Your task to perform on an android device: turn off notifications settings in the gmail app Image 0: 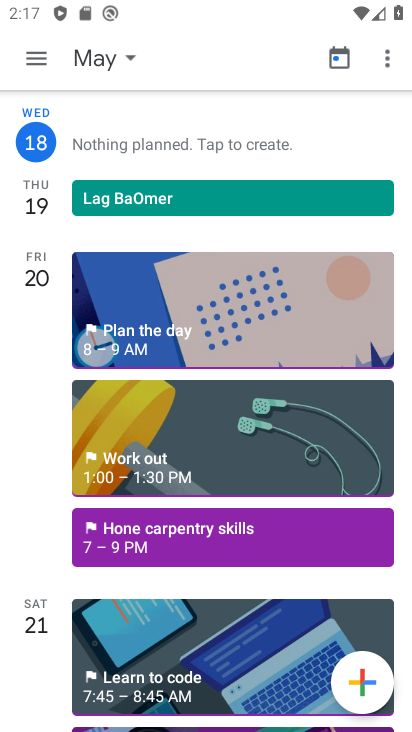
Step 0: press home button
Your task to perform on an android device: turn off notifications settings in the gmail app Image 1: 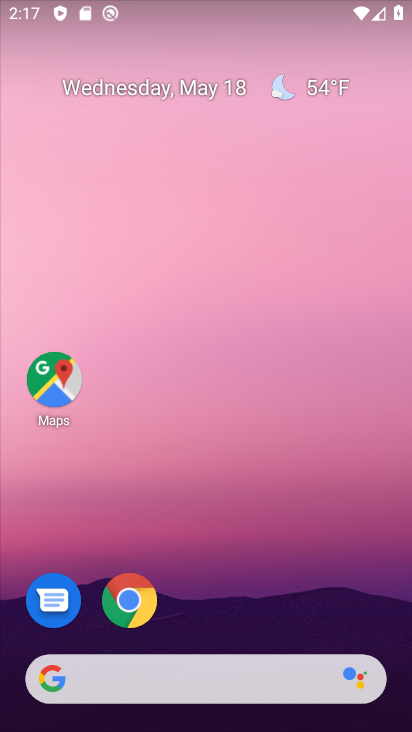
Step 1: drag from (123, 655) to (242, 266)
Your task to perform on an android device: turn off notifications settings in the gmail app Image 2: 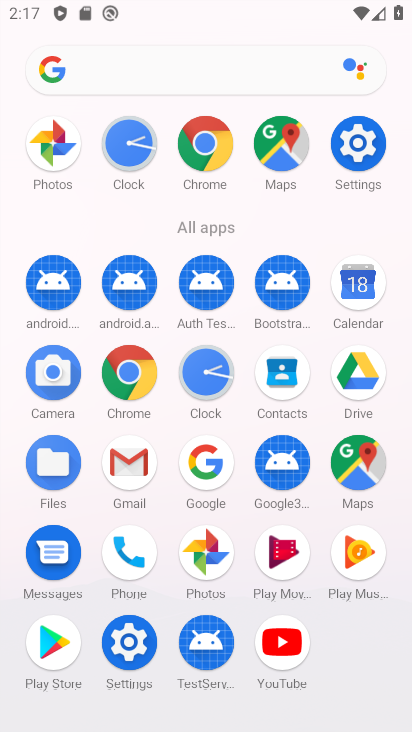
Step 2: click (133, 474)
Your task to perform on an android device: turn off notifications settings in the gmail app Image 3: 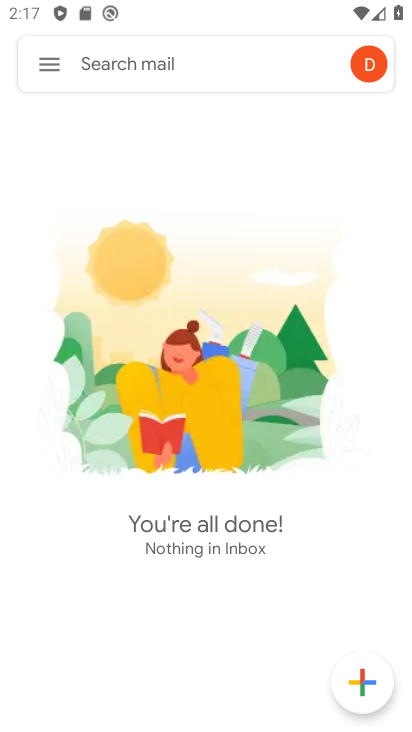
Step 3: click (44, 60)
Your task to perform on an android device: turn off notifications settings in the gmail app Image 4: 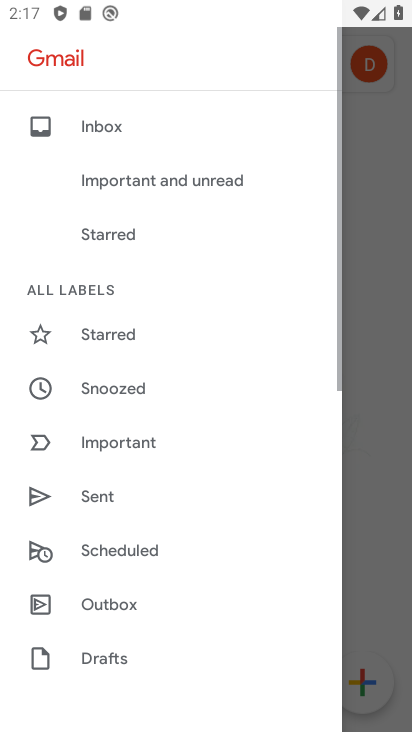
Step 4: drag from (155, 602) to (260, 253)
Your task to perform on an android device: turn off notifications settings in the gmail app Image 5: 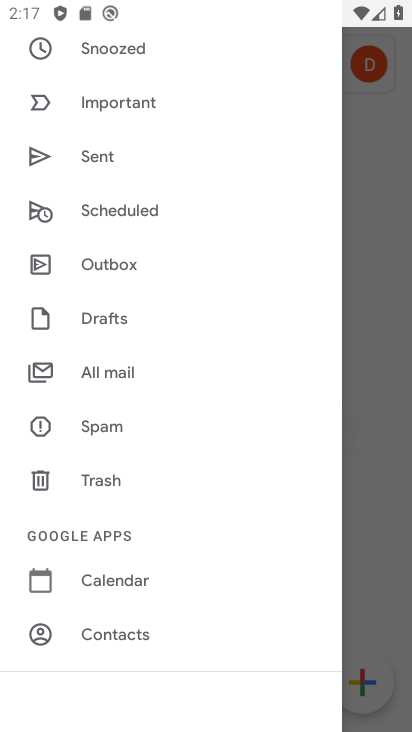
Step 5: drag from (147, 614) to (270, 242)
Your task to perform on an android device: turn off notifications settings in the gmail app Image 6: 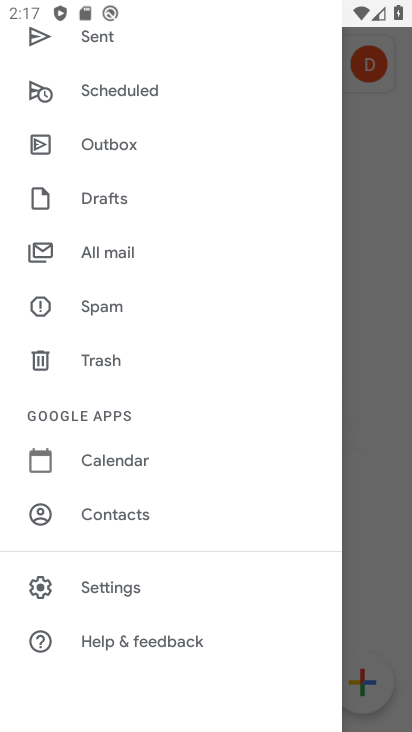
Step 6: click (121, 592)
Your task to perform on an android device: turn off notifications settings in the gmail app Image 7: 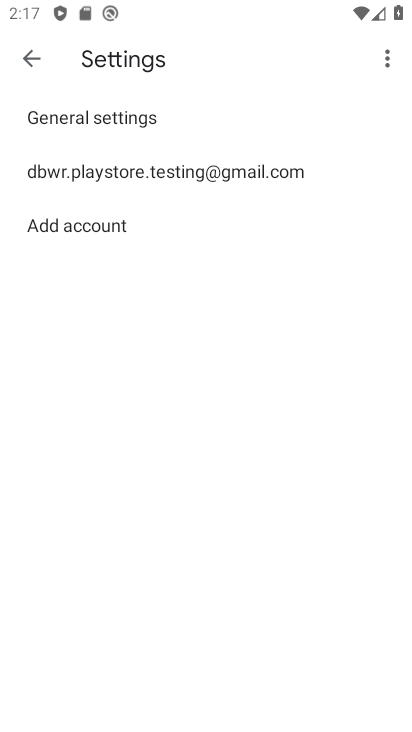
Step 7: click (241, 165)
Your task to perform on an android device: turn off notifications settings in the gmail app Image 8: 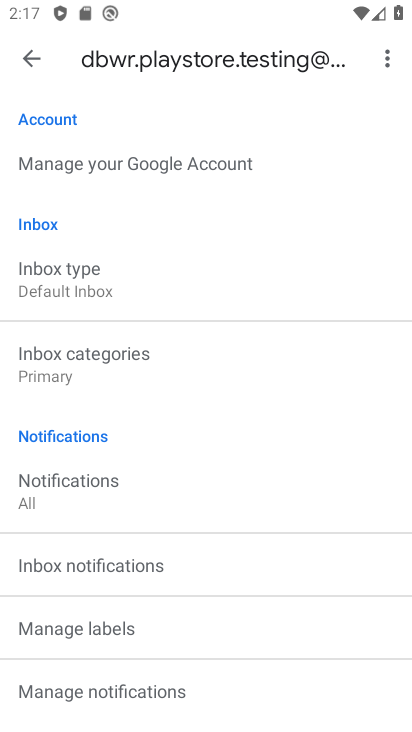
Step 8: click (112, 488)
Your task to perform on an android device: turn off notifications settings in the gmail app Image 9: 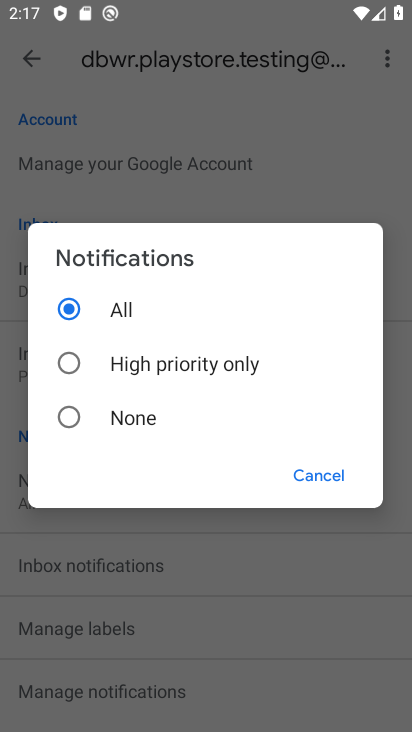
Step 9: click (68, 418)
Your task to perform on an android device: turn off notifications settings in the gmail app Image 10: 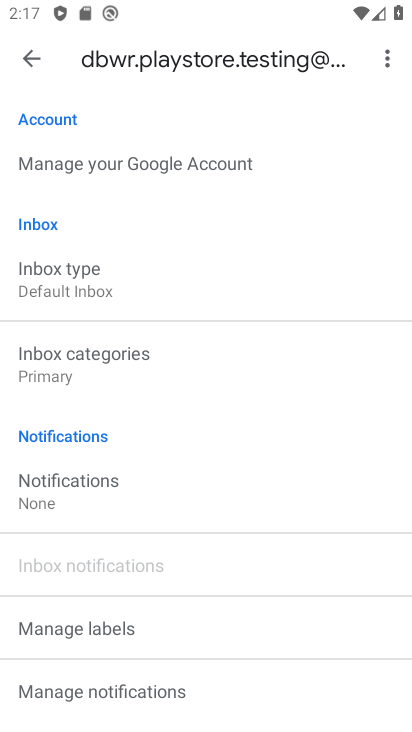
Step 10: task complete